Your task to perform on an android device: Show me popular games on the Play Store Image 0: 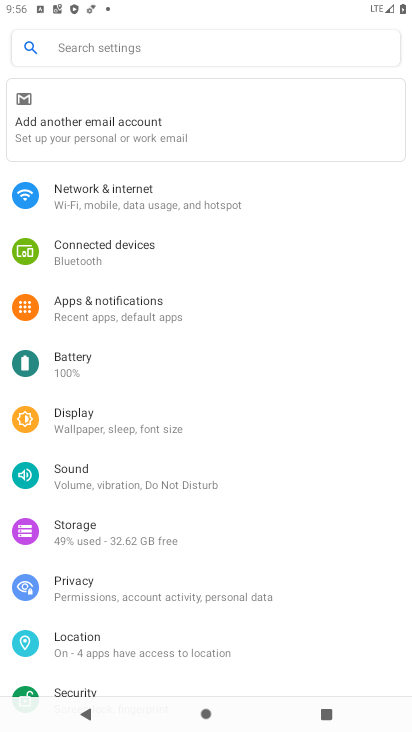
Step 0: press home button
Your task to perform on an android device: Show me popular games on the Play Store Image 1: 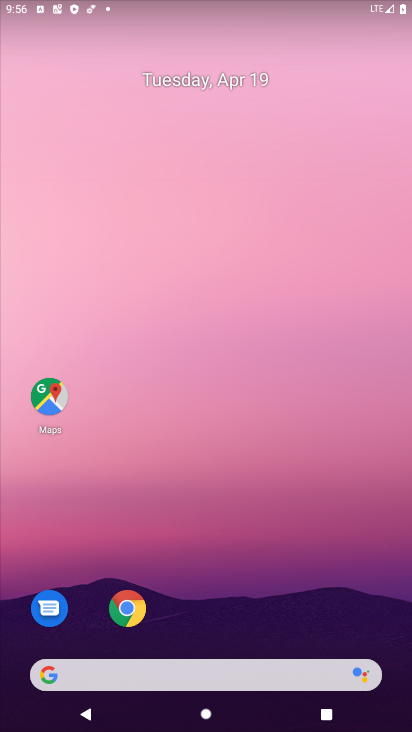
Step 1: drag from (358, 618) to (283, 135)
Your task to perform on an android device: Show me popular games on the Play Store Image 2: 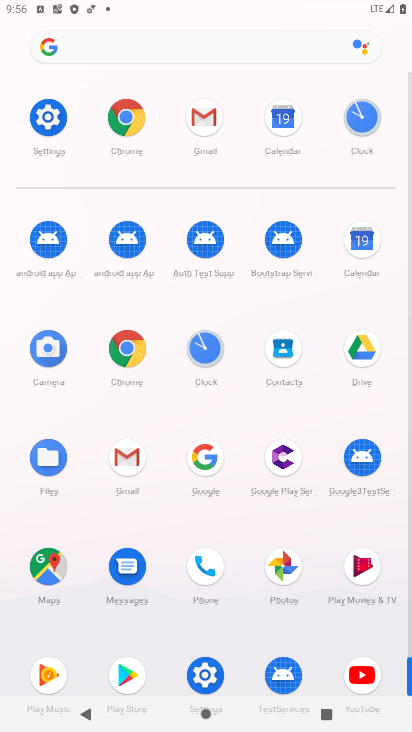
Step 2: click (123, 671)
Your task to perform on an android device: Show me popular games on the Play Store Image 3: 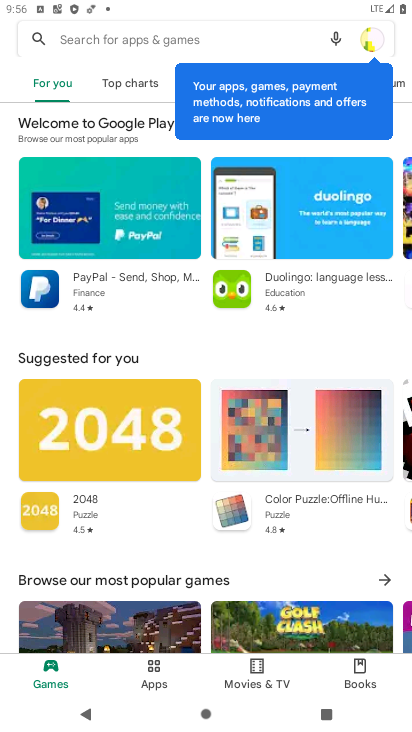
Step 3: drag from (234, 586) to (225, 278)
Your task to perform on an android device: Show me popular games on the Play Store Image 4: 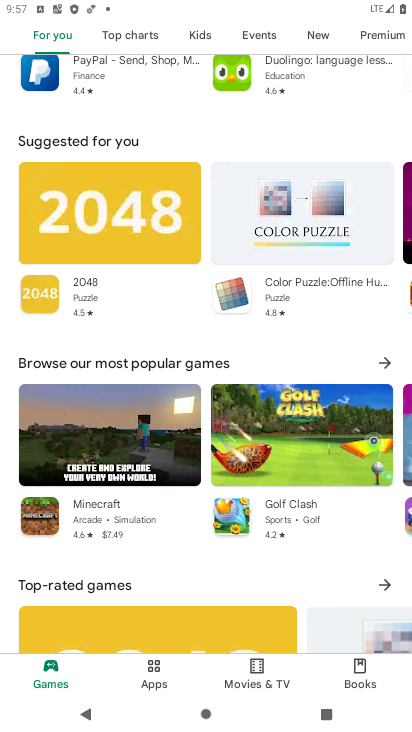
Step 4: click (385, 361)
Your task to perform on an android device: Show me popular games on the Play Store Image 5: 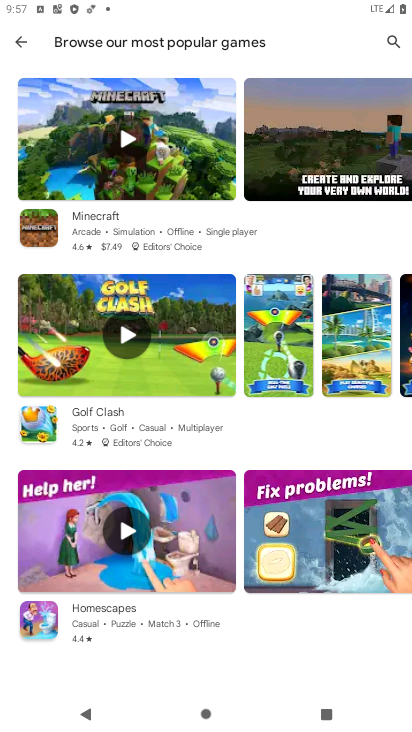
Step 5: task complete